Your task to perform on an android device: Show me popular videos on Youtube Image 0: 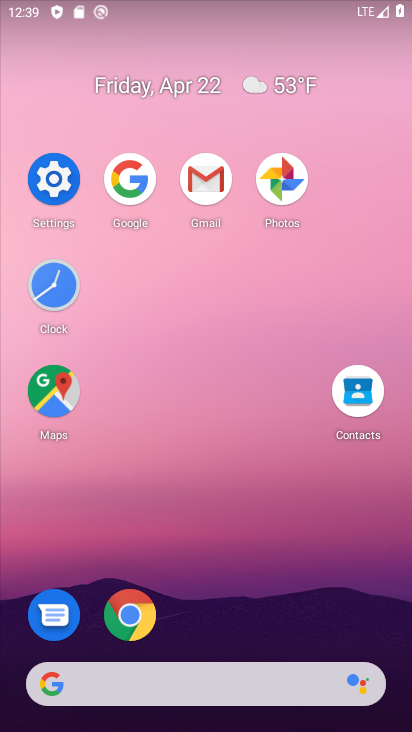
Step 0: drag from (282, 534) to (330, 108)
Your task to perform on an android device: Show me popular videos on Youtube Image 1: 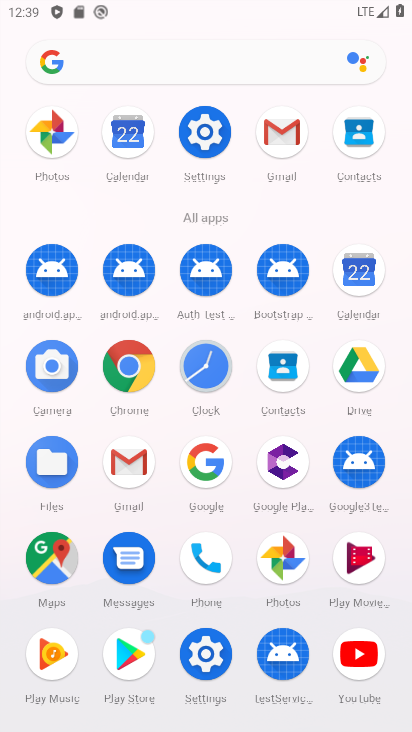
Step 1: drag from (136, 616) to (189, 298)
Your task to perform on an android device: Show me popular videos on Youtube Image 2: 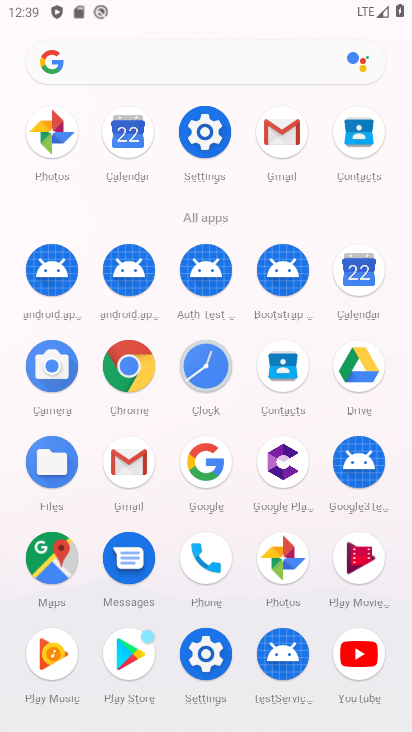
Step 2: click (358, 649)
Your task to perform on an android device: Show me popular videos on Youtube Image 3: 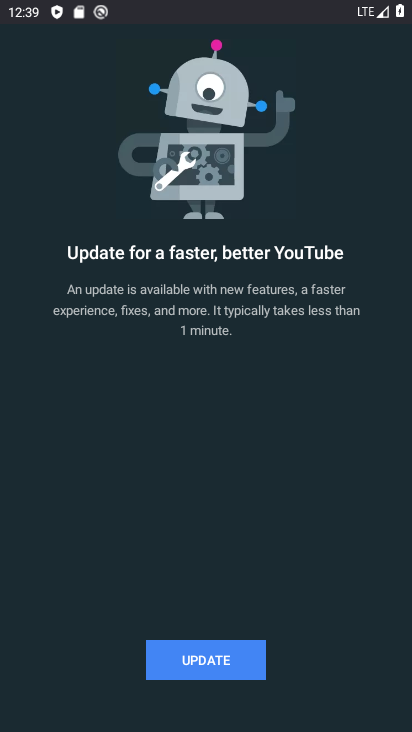
Step 3: click (246, 669)
Your task to perform on an android device: Show me popular videos on Youtube Image 4: 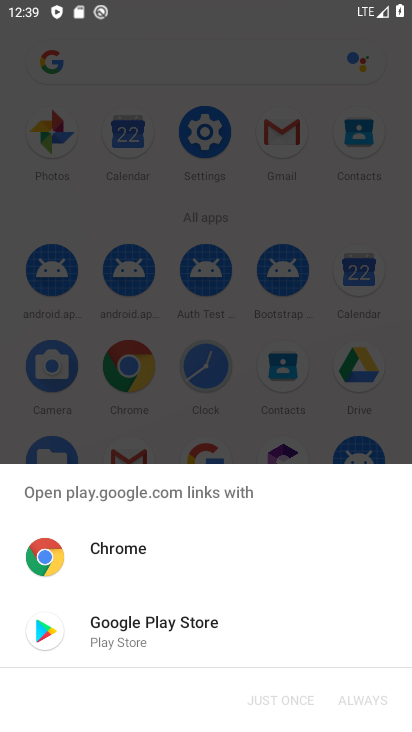
Step 4: click (132, 615)
Your task to perform on an android device: Show me popular videos on Youtube Image 5: 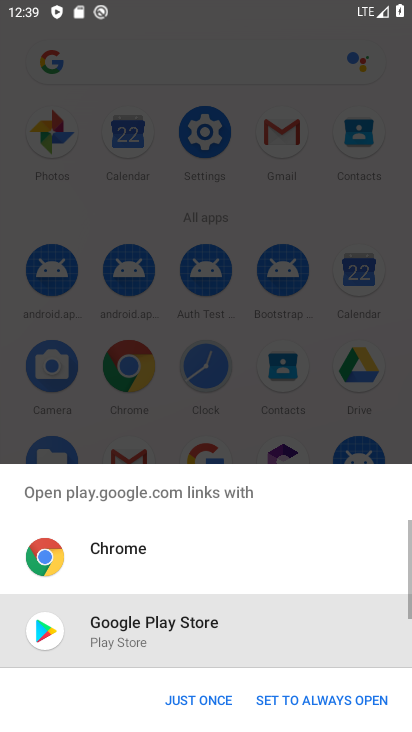
Step 5: click (135, 615)
Your task to perform on an android device: Show me popular videos on Youtube Image 6: 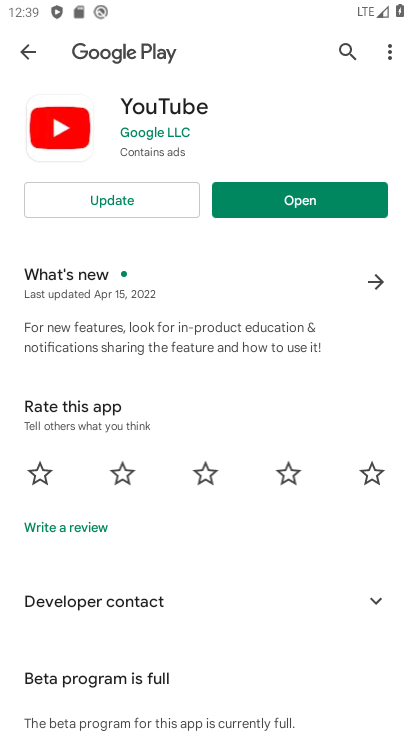
Step 6: click (141, 208)
Your task to perform on an android device: Show me popular videos on Youtube Image 7: 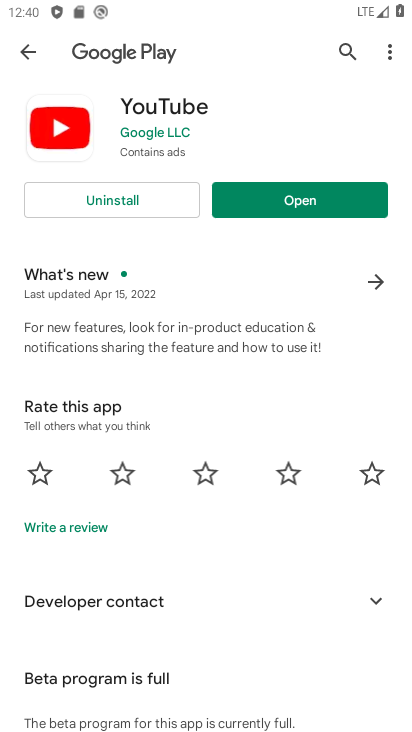
Step 7: click (323, 192)
Your task to perform on an android device: Show me popular videos on Youtube Image 8: 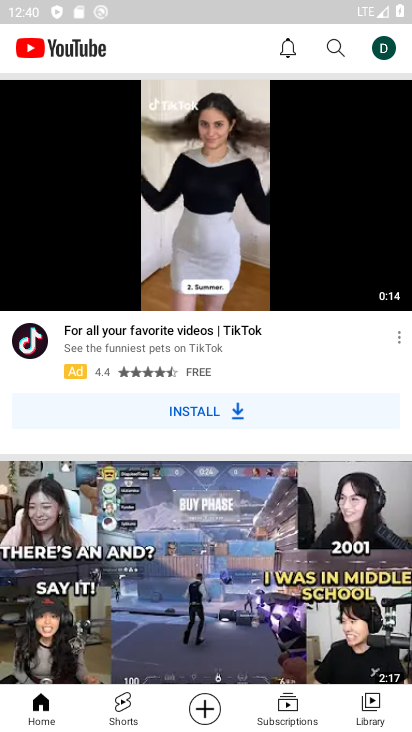
Step 8: task complete